Your task to perform on an android device: Check the weather Image 0: 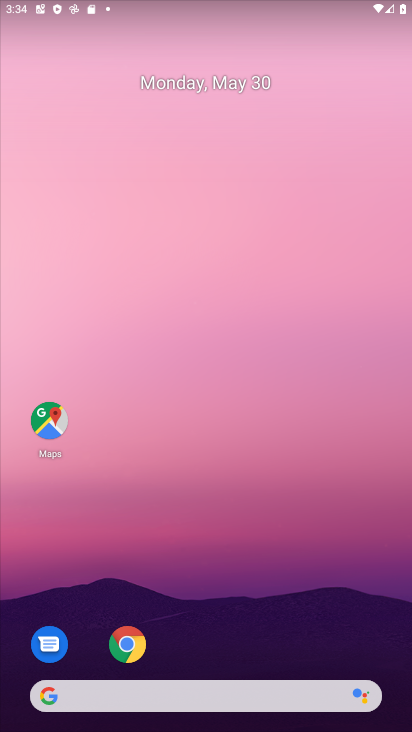
Step 0: drag from (342, 655) to (327, 137)
Your task to perform on an android device: Check the weather Image 1: 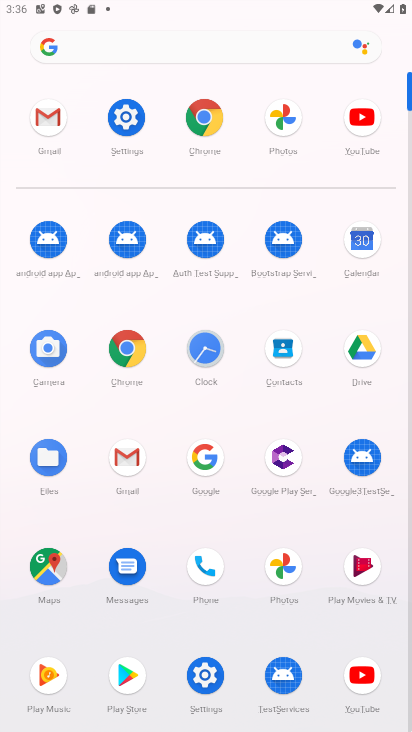
Step 1: click (220, 40)
Your task to perform on an android device: Check the weather Image 2: 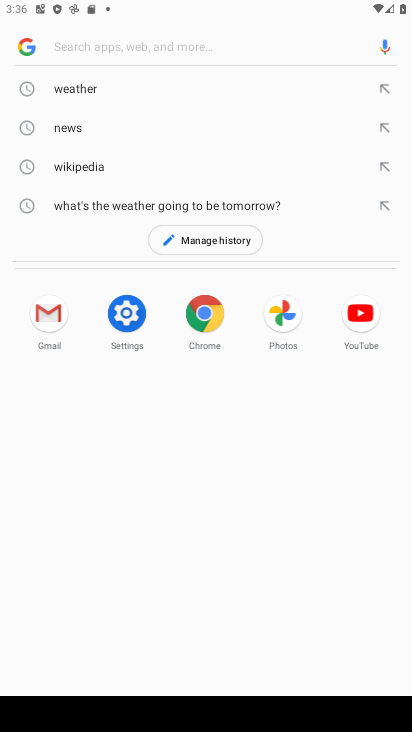
Step 2: click (204, 84)
Your task to perform on an android device: Check the weather Image 3: 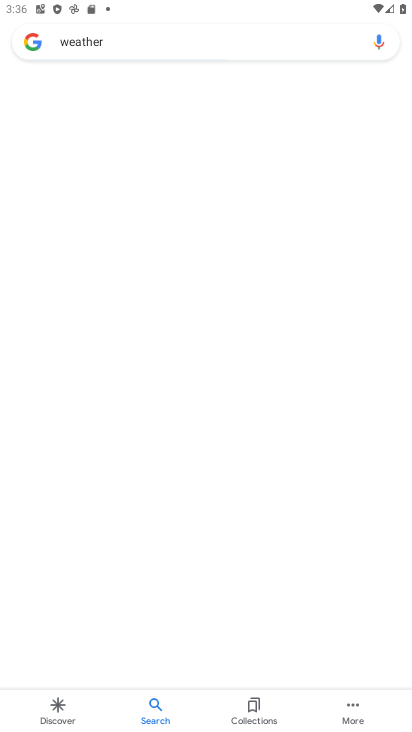
Step 3: task complete